Your task to perform on an android device: open app "Spotify: Music and Podcasts" (install if not already installed) Image 0: 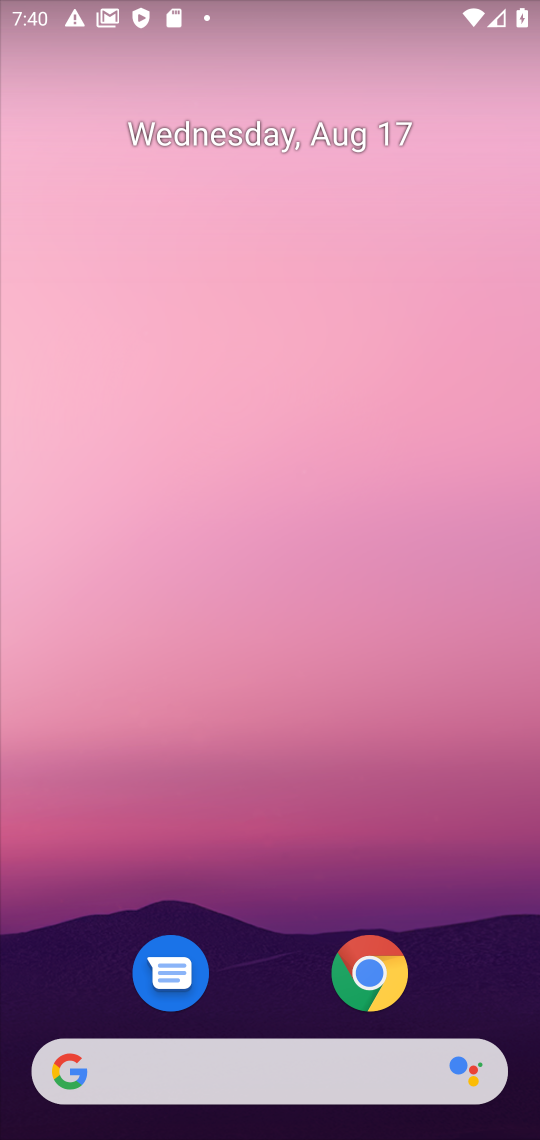
Step 0: drag from (251, 1005) to (281, 223)
Your task to perform on an android device: open app "Spotify: Music and Podcasts" (install if not already installed) Image 1: 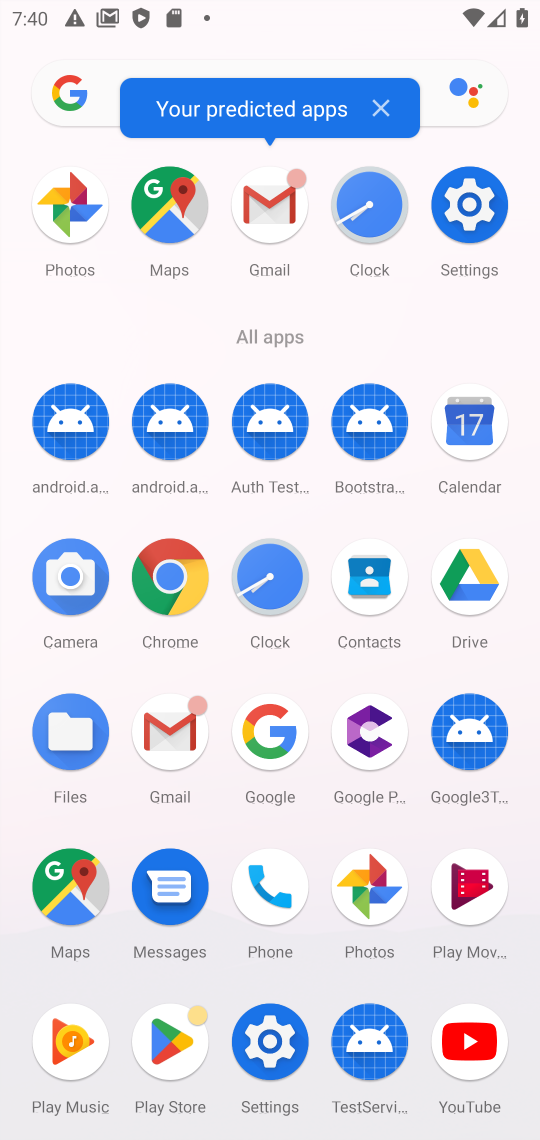
Step 1: click (151, 1051)
Your task to perform on an android device: open app "Spotify: Music and Podcasts" (install if not already installed) Image 2: 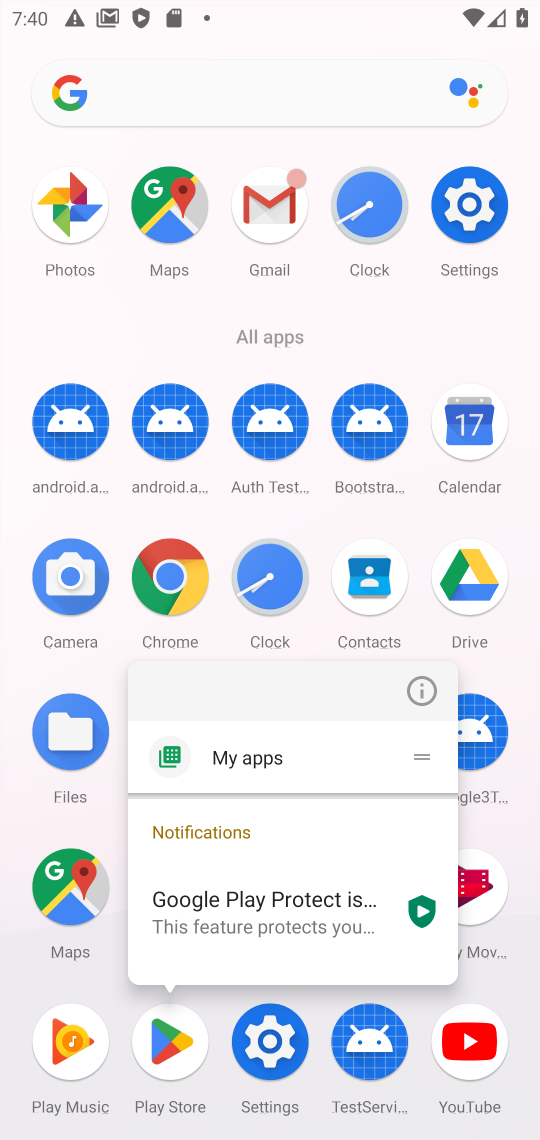
Step 2: click (168, 1067)
Your task to perform on an android device: open app "Spotify: Music and Podcasts" (install if not already installed) Image 3: 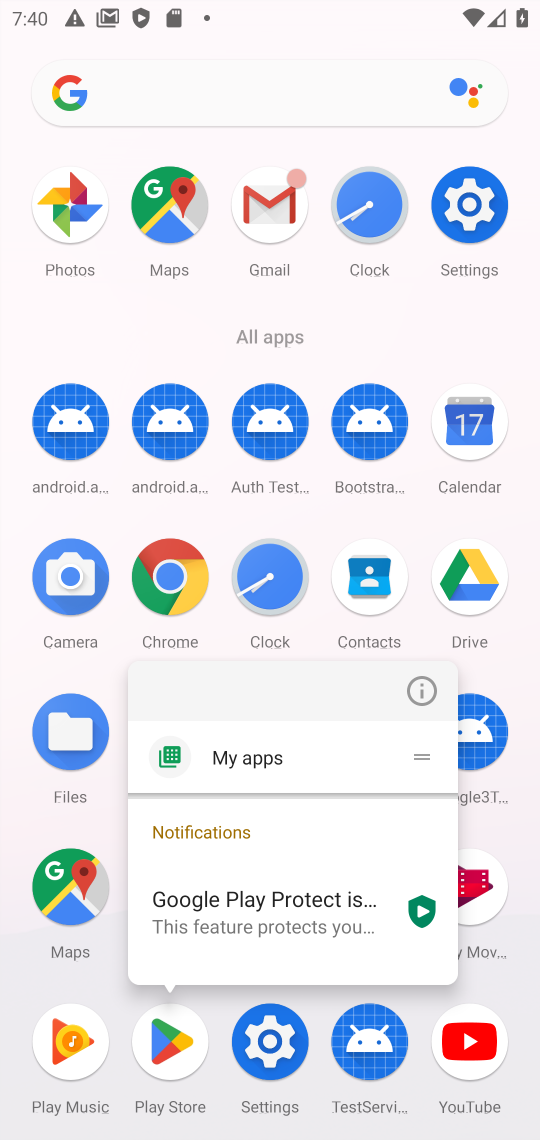
Step 3: click (169, 1065)
Your task to perform on an android device: open app "Spotify: Music and Podcasts" (install if not already installed) Image 4: 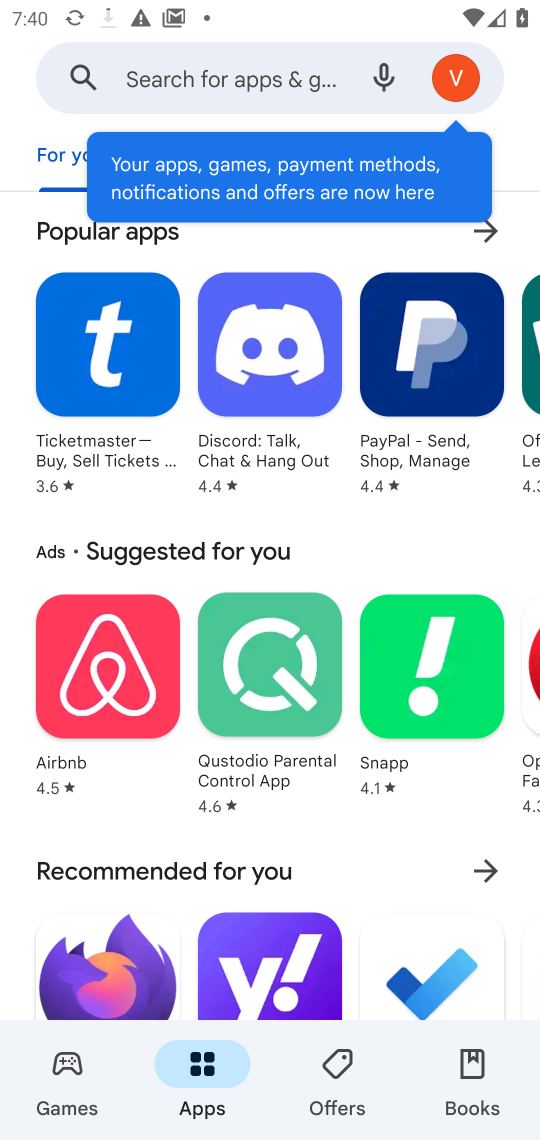
Step 4: click (242, 75)
Your task to perform on an android device: open app "Spotify: Music and Podcasts" (install if not already installed) Image 5: 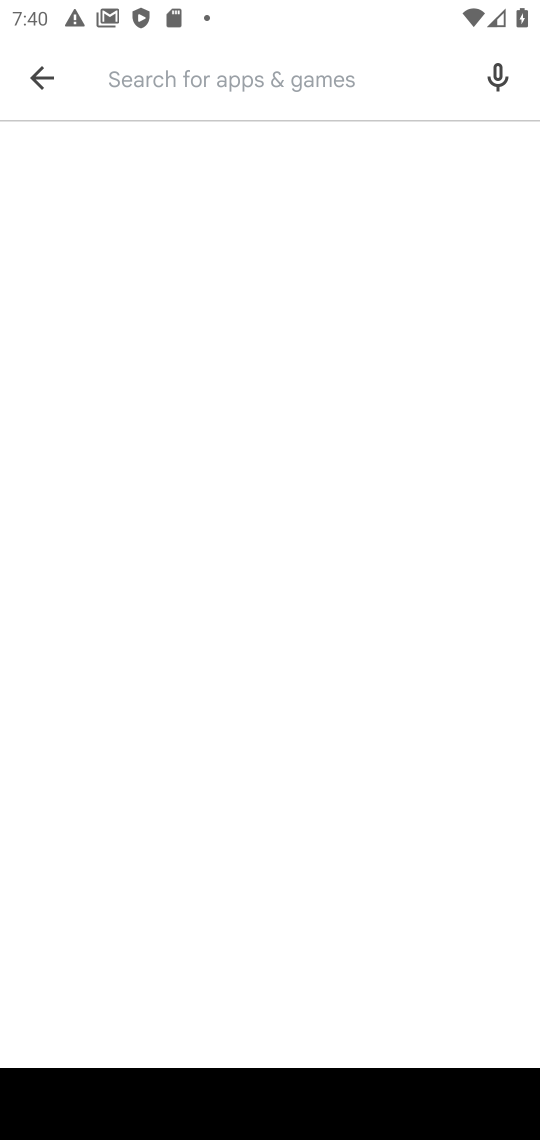
Step 5: type "Spotify: Music and Podcasts"
Your task to perform on an android device: open app "Spotify: Music and Podcasts" (install if not already installed) Image 6: 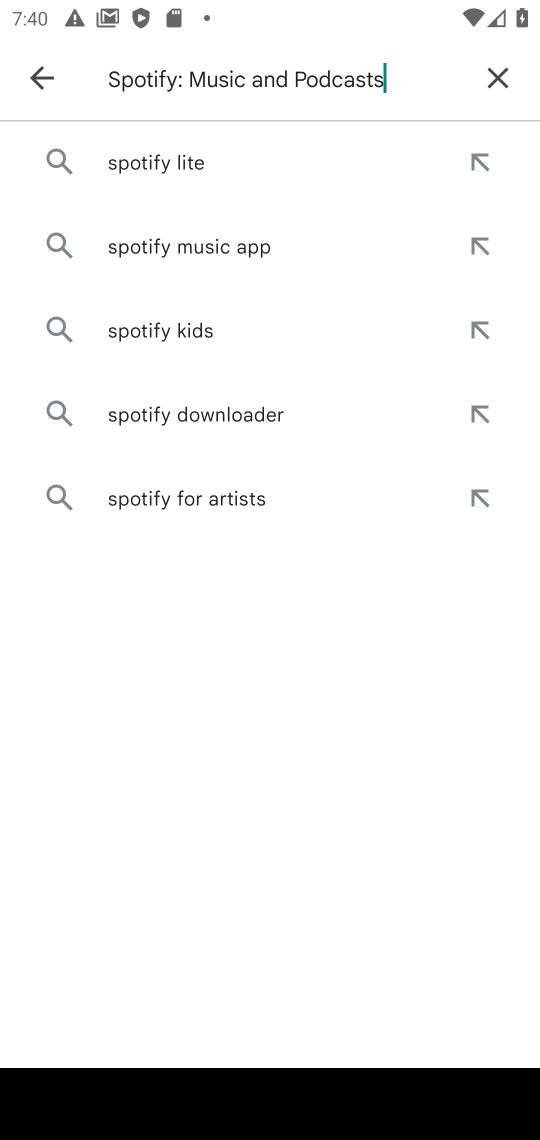
Step 6: type ""
Your task to perform on an android device: open app "Spotify: Music and Podcasts" (install if not already installed) Image 7: 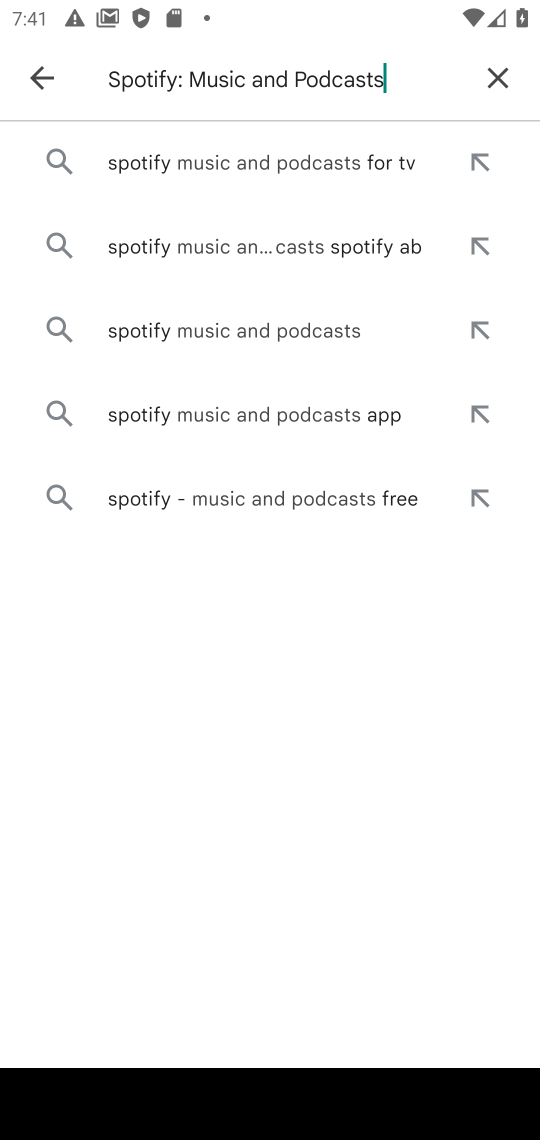
Step 7: click (290, 172)
Your task to perform on an android device: open app "Spotify: Music and Podcasts" (install if not already installed) Image 8: 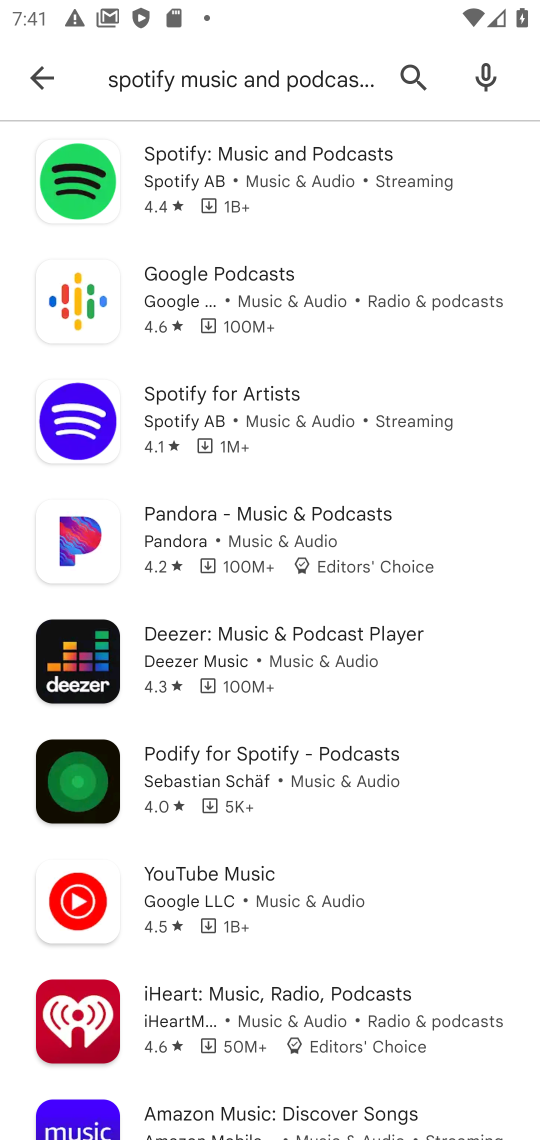
Step 8: click (273, 184)
Your task to perform on an android device: open app "Spotify: Music and Podcasts" (install if not already installed) Image 9: 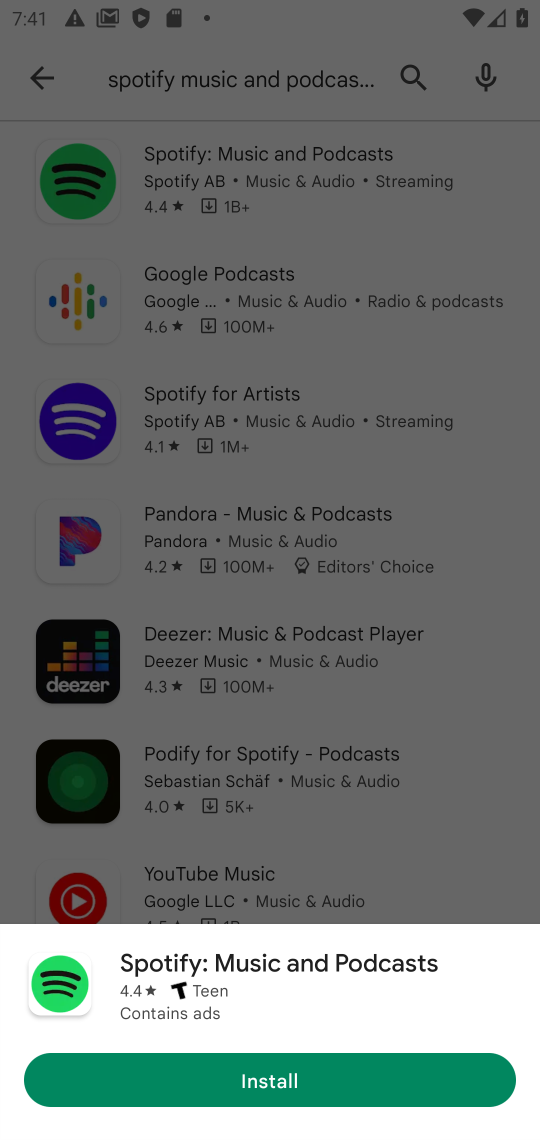
Step 9: click (355, 1100)
Your task to perform on an android device: open app "Spotify: Music and Podcasts" (install if not already installed) Image 10: 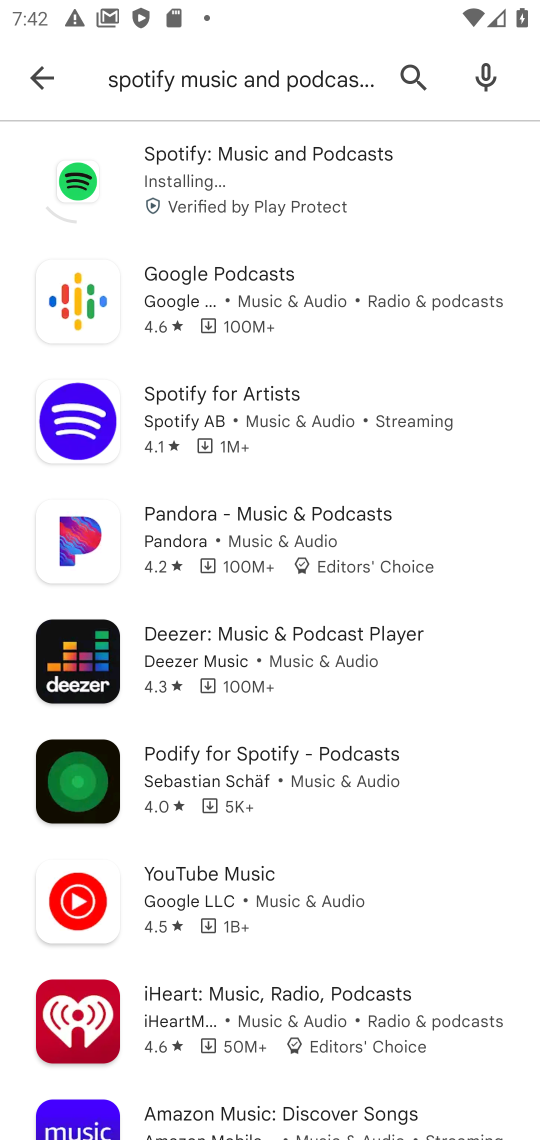
Step 10: click (284, 207)
Your task to perform on an android device: open app "Spotify: Music and Podcasts" (install if not already installed) Image 11: 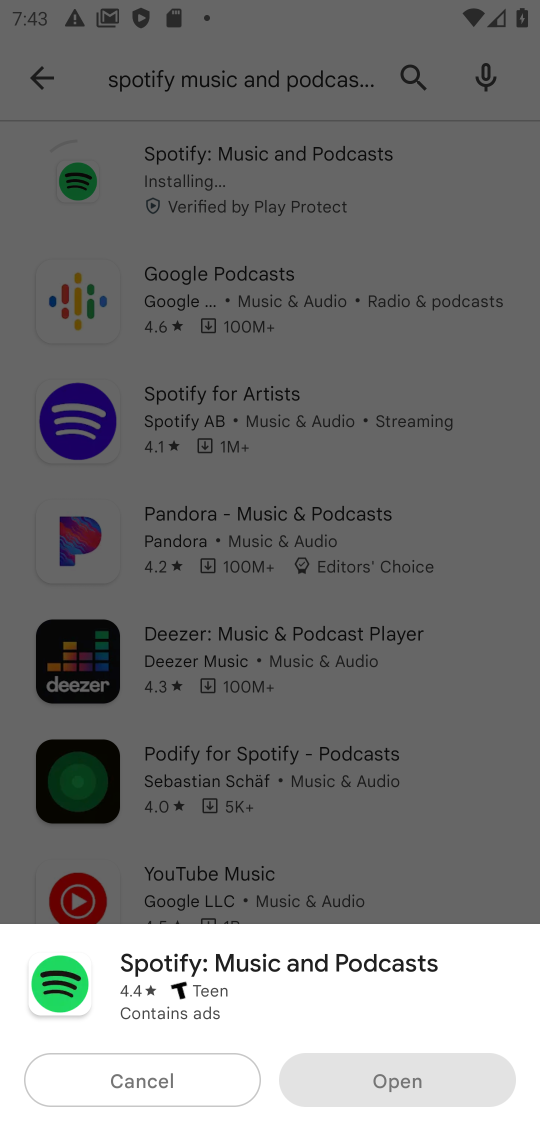
Step 11: click (333, 605)
Your task to perform on an android device: open app "Spotify: Music and Podcasts" (install if not already installed) Image 12: 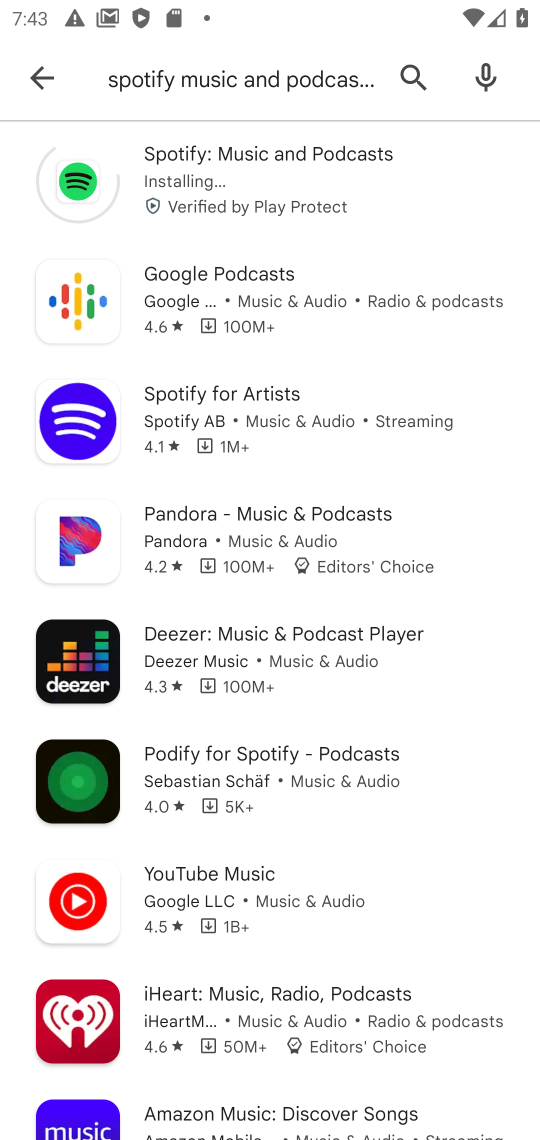
Step 12: click (371, 187)
Your task to perform on an android device: open app "Spotify: Music and Podcasts" (install if not already installed) Image 13: 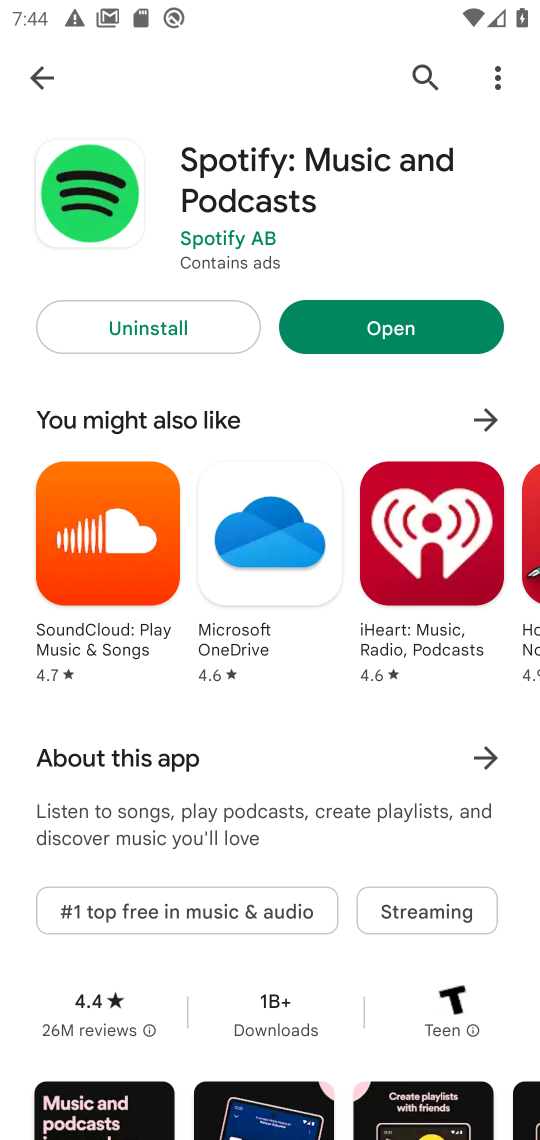
Step 13: click (435, 345)
Your task to perform on an android device: open app "Spotify: Music and Podcasts" (install if not already installed) Image 14: 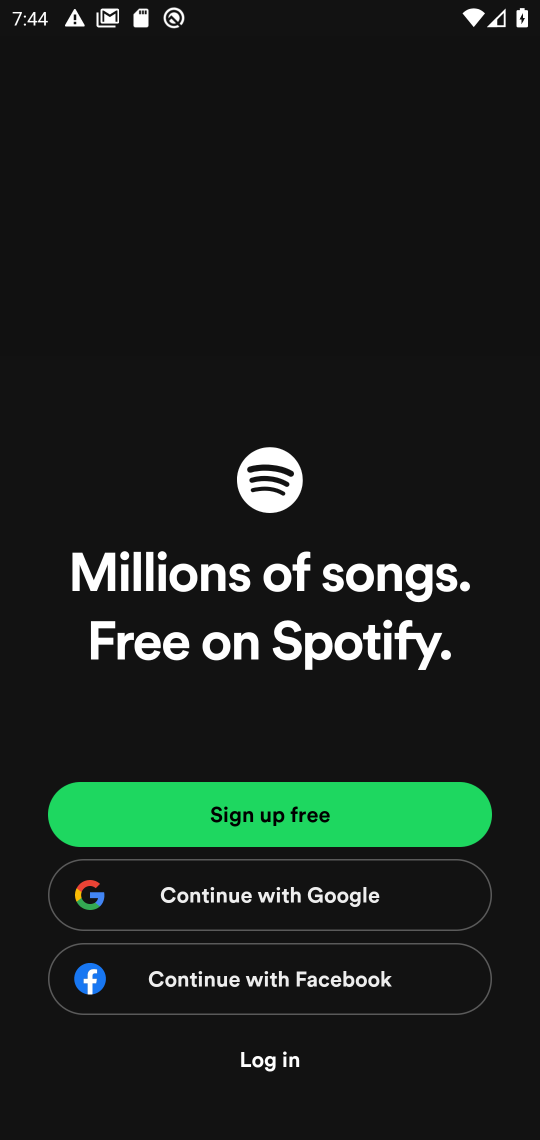
Step 14: task complete